Your task to perform on an android device: set an alarm Image 0: 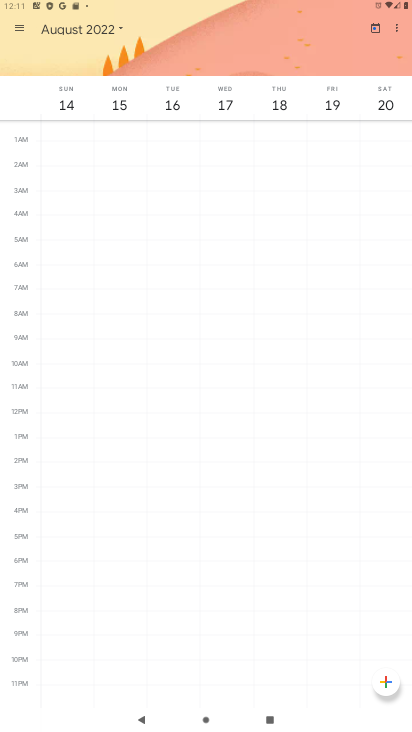
Step 0: press home button
Your task to perform on an android device: set an alarm Image 1: 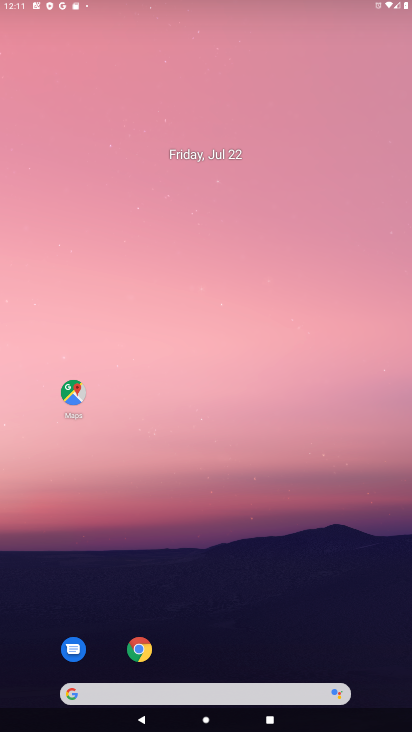
Step 1: drag from (352, 620) to (260, 229)
Your task to perform on an android device: set an alarm Image 2: 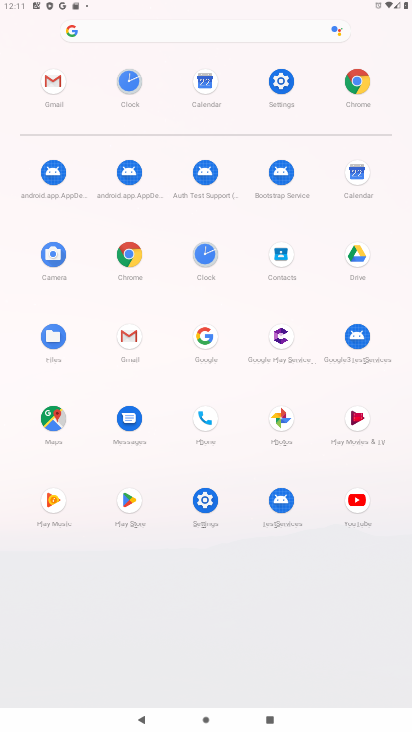
Step 2: click (130, 87)
Your task to perform on an android device: set an alarm Image 3: 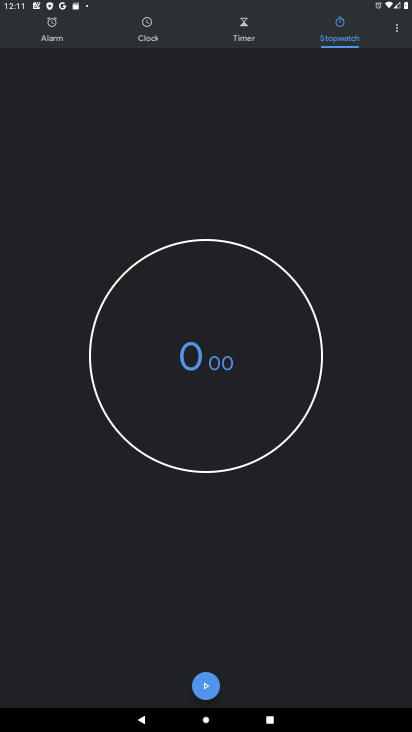
Step 3: click (61, 34)
Your task to perform on an android device: set an alarm Image 4: 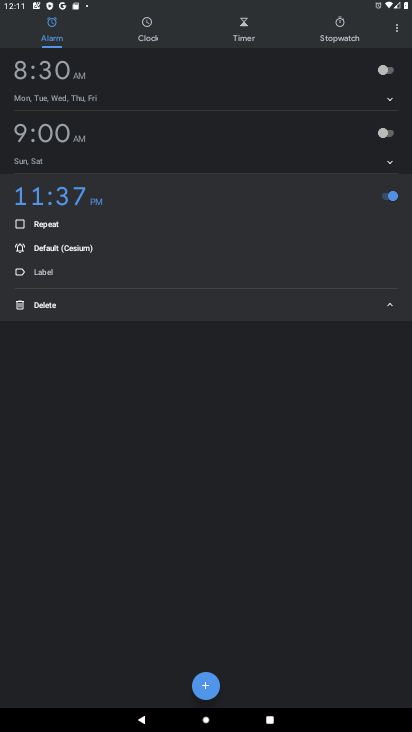
Step 4: task complete